Your task to perform on an android device: Go to ESPN.com Image 0: 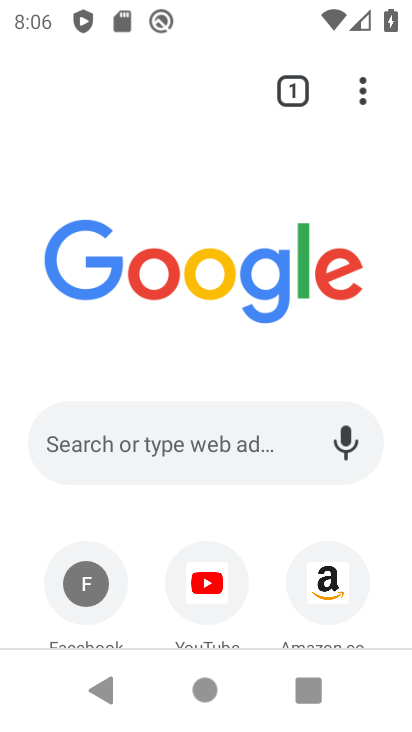
Step 0: click (263, 434)
Your task to perform on an android device: Go to ESPN.com Image 1: 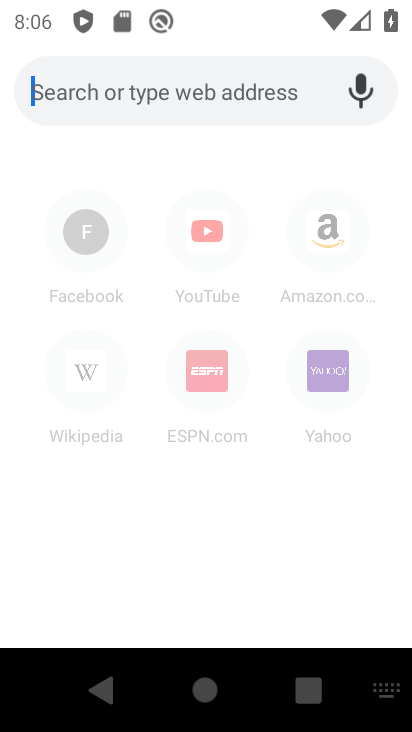
Step 1: click (220, 400)
Your task to perform on an android device: Go to ESPN.com Image 2: 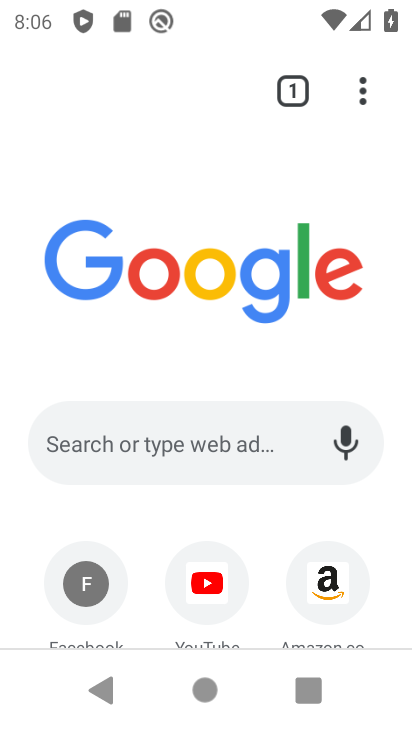
Step 2: drag from (247, 341) to (177, 59)
Your task to perform on an android device: Go to ESPN.com Image 3: 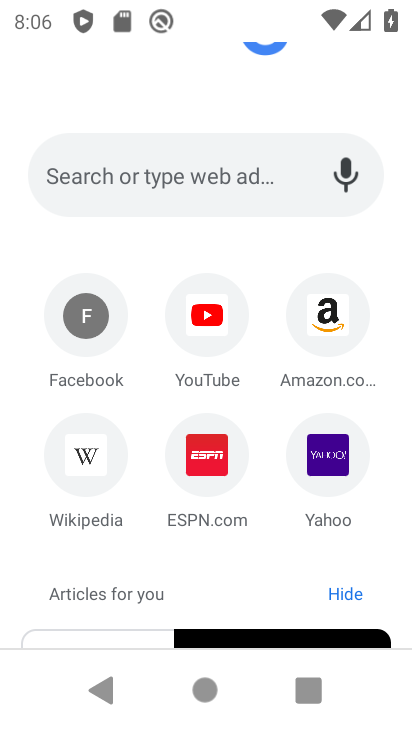
Step 3: click (225, 473)
Your task to perform on an android device: Go to ESPN.com Image 4: 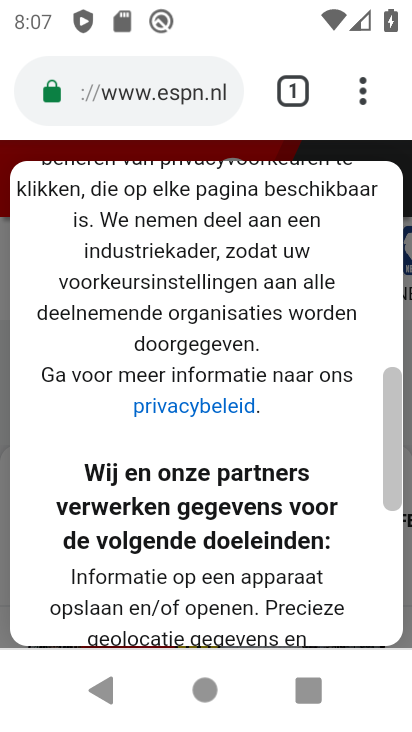
Step 4: task complete